Your task to perform on an android device: open app "Life360: Find Family & Friends" (install if not already installed) and go to login screen Image 0: 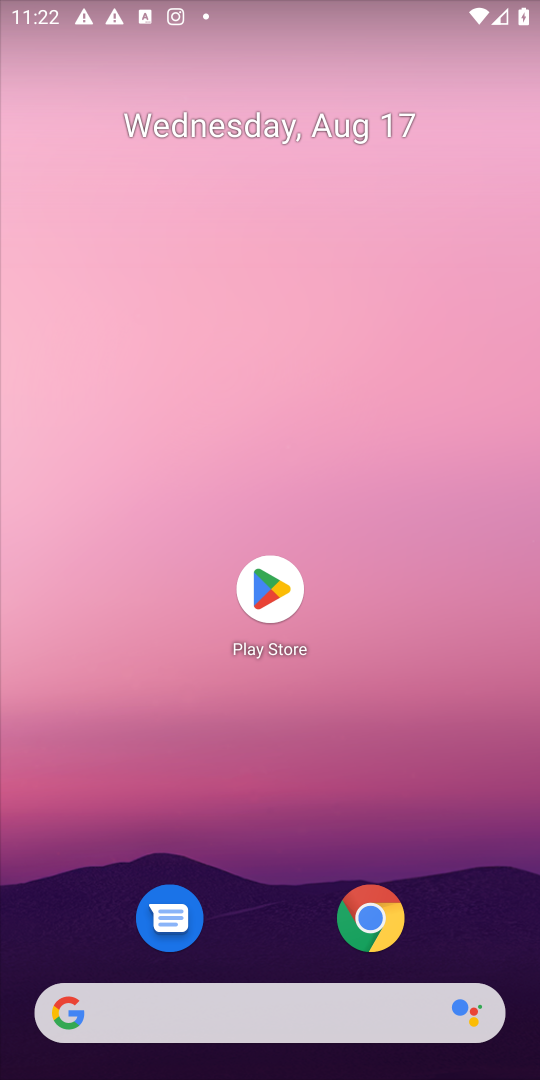
Step 0: click (268, 594)
Your task to perform on an android device: open app "Life360: Find Family & Friends" (install if not already installed) and go to login screen Image 1: 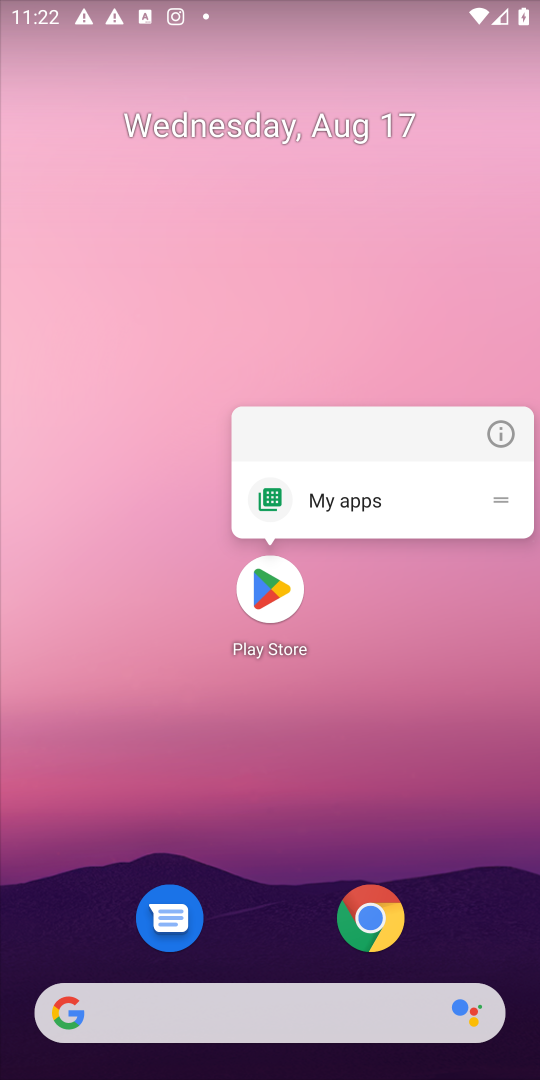
Step 1: click (267, 600)
Your task to perform on an android device: open app "Life360: Find Family & Friends" (install if not already installed) and go to login screen Image 2: 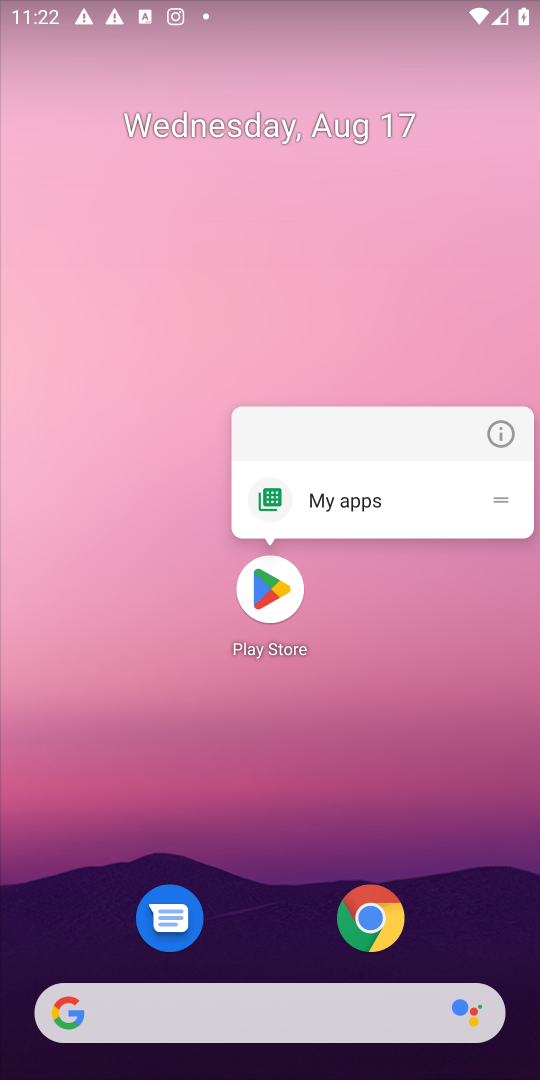
Step 2: click (267, 594)
Your task to perform on an android device: open app "Life360: Find Family & Friends" (install if not already installed) and go to login screen Image 3: 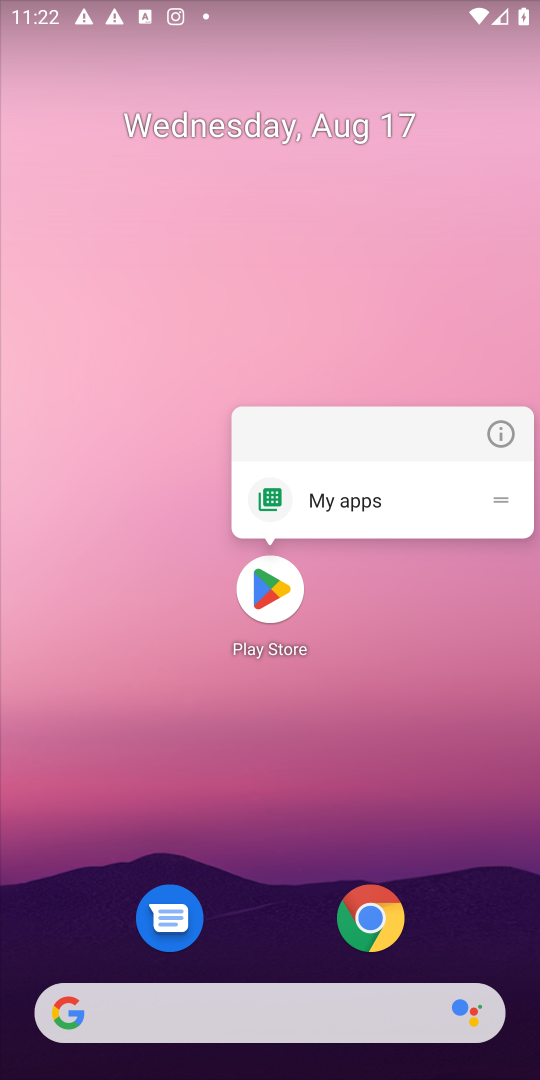
Step 3: click (267, 594)
Your task to perform on an android device: open app "Life360: Find Family & Friends" (install if not already installed) and go to login screen Image 4: 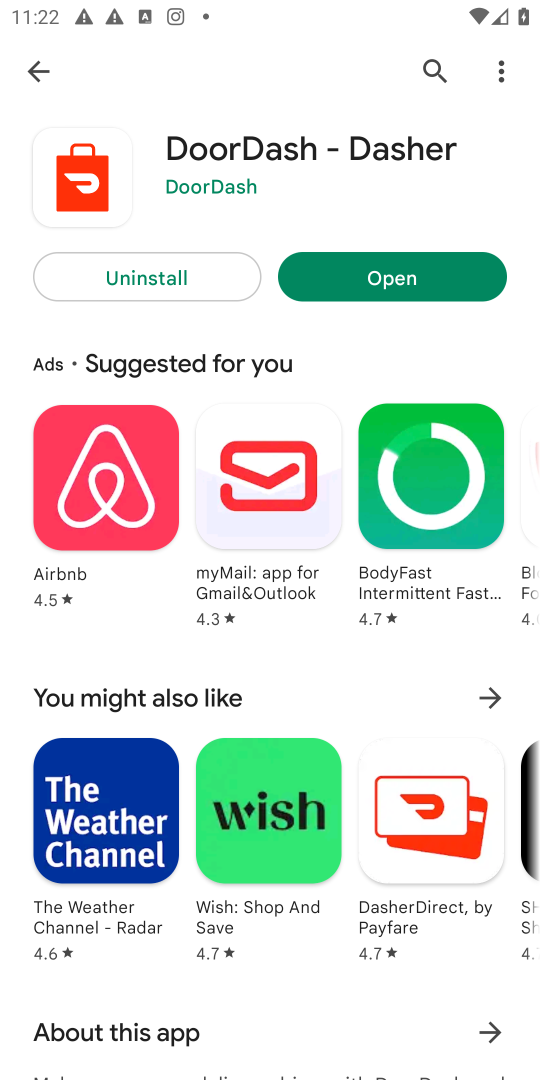
Step 4: click (439, 72)
Your task to perform on an android device: open app "Life360: Find Family & Friends" (install if not already installed) and go to login screen Image 5: 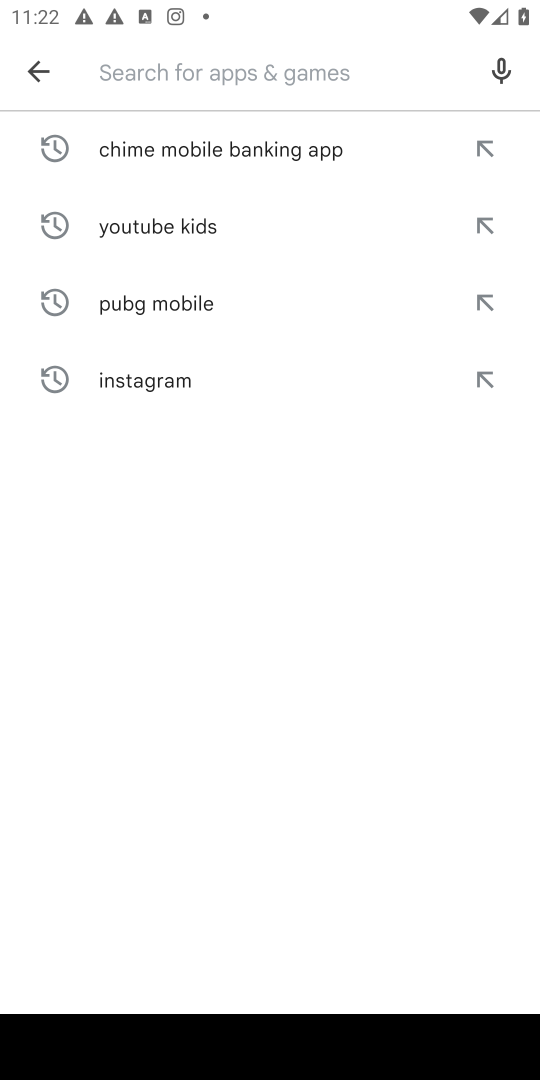
Step 5: drag from (59, 1076) to (149, 1007)
Your task to perform on an android device: open app "Life360: Find Family & Friends" (install if not already installed) and go to login screen Image 6: 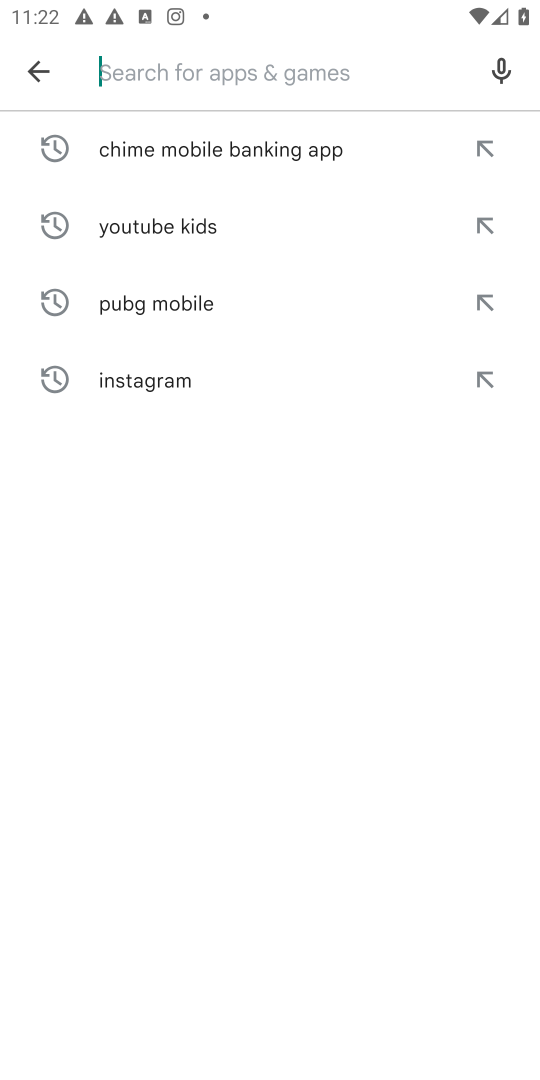
Step 6: type "Life360: Find Family & Friends"
Your task to perform on an android device: open app "Life360: Find Family & Friends" (install if not already installed) and go to login screen Image 7: 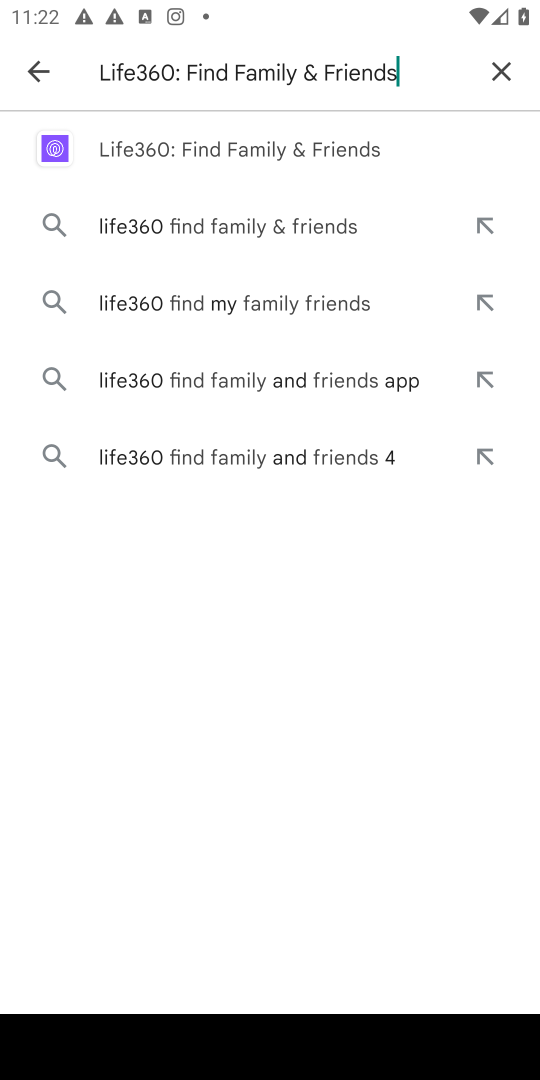
Step 7: click (233, 158)
Your task to perform on an android device: open app "Life360: Find Family & Friends" (install if not already installed) and go to login screen Image 8: 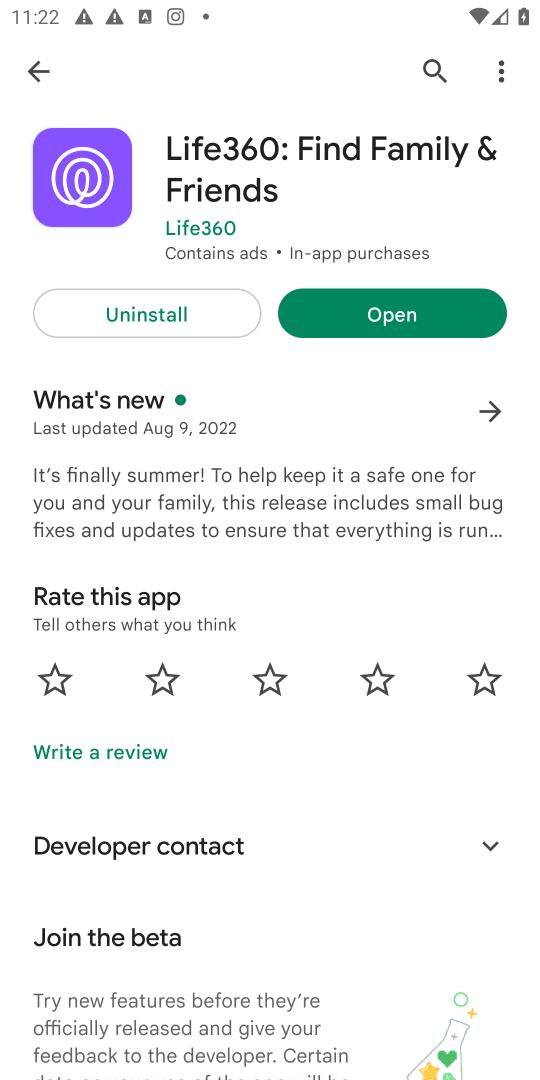
Step 8: click (386, 316)
Your task to perform on an android device: open app "Life360: Find Family & Friends" (install if not already installed) and go to login screen Image 9: 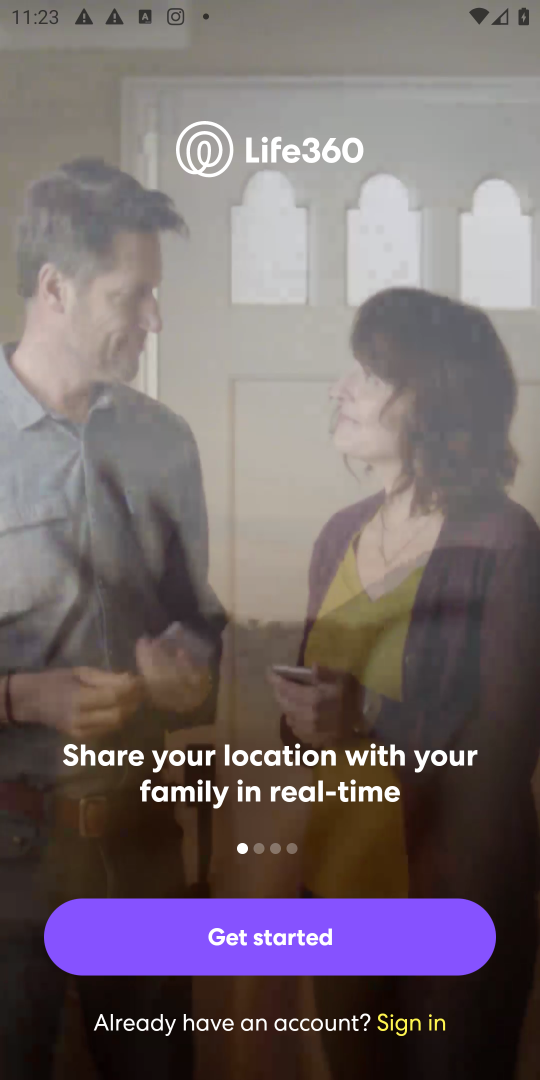
Step 9: task complete